Your task to perform on an android device: move a message to another label in the gmail app Image 0: 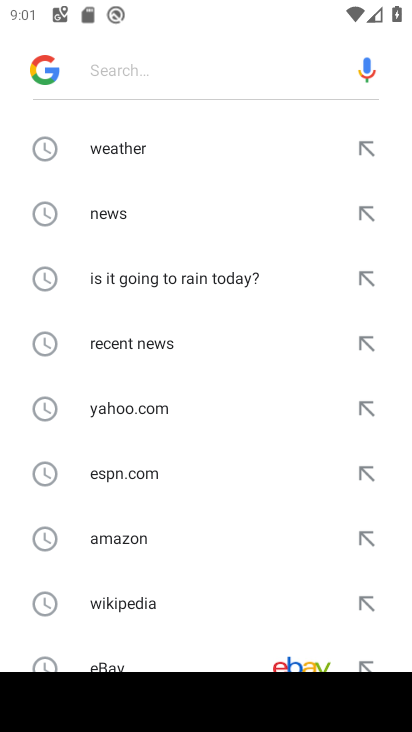
Step 0: press home button
Your task to perform on an android device: move a message to another label in the gmail app Image 1: 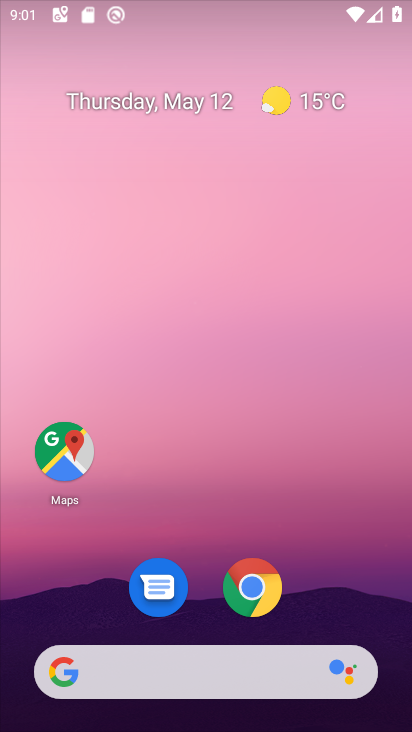
Step 1: drag from (367, 625) to (302, 3)
Your task to perform on an android device: move a message to another label in the gmail app Image 2: 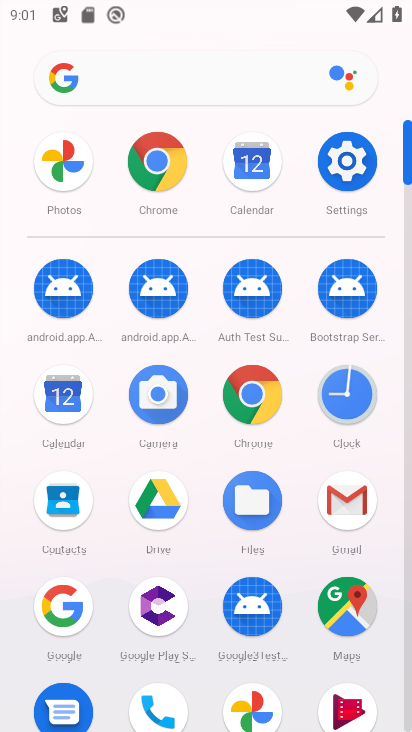
Step 2: click (350, 490)
Your task to perform on an android device: move a message to another label in the gmail app Image 3: 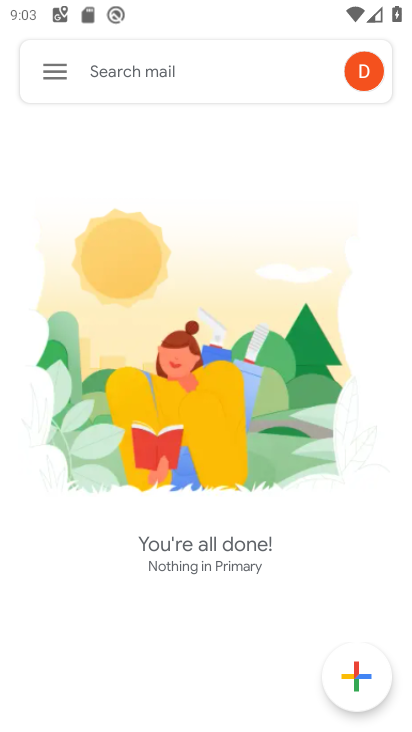
Step 3: task complete